Your task to perform on an android device: Go to Yahoo.com Image 0: 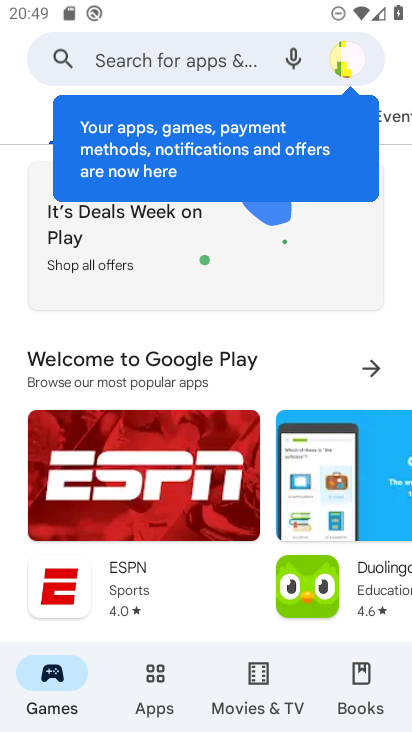
Step 0: press home button
Your task to perform on an android device: Go to Yahoo.com Image 1: 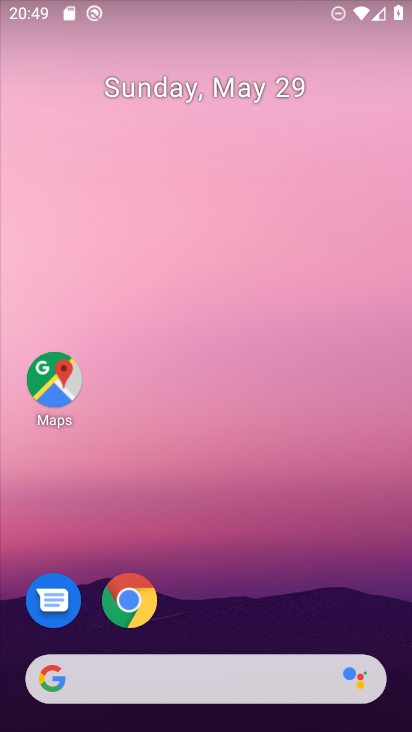
Step 1: drag from (292, 556) to (297, 181)
Your task to perform on an android device: Go to Yahoo.com Image 2: 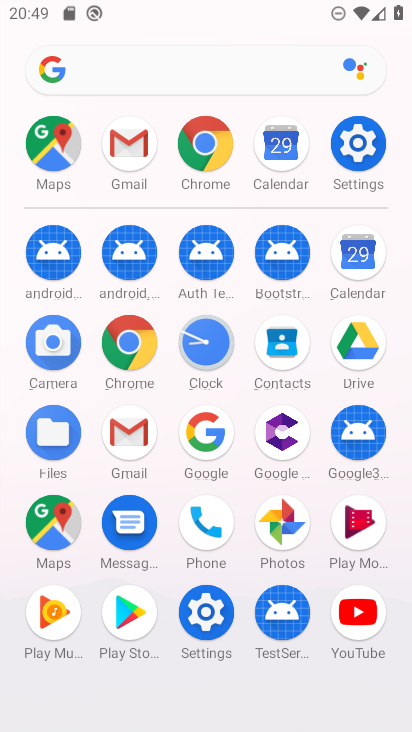
Step 2: click (130, 335)
Your task to perform on an android device: Go to Yahoo.com Image 3: 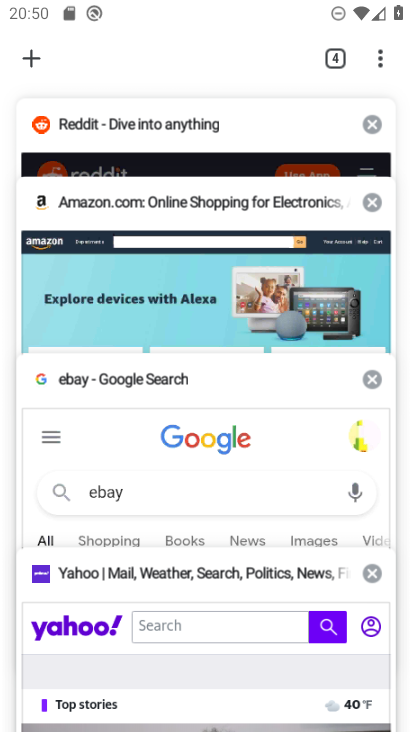
Step 3: click (25, 58)
Your task to perform on an android device: Go to Yahoo.com Image 4: 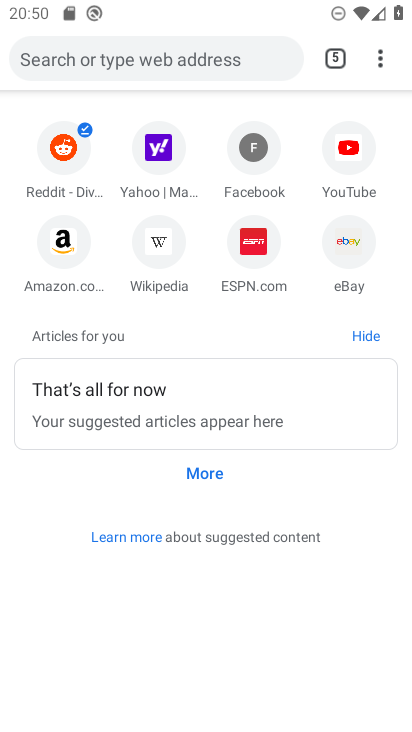
Step 4: click (160, 160)
Your task to perform on an android device: Go to Yahoo.com Image 5: 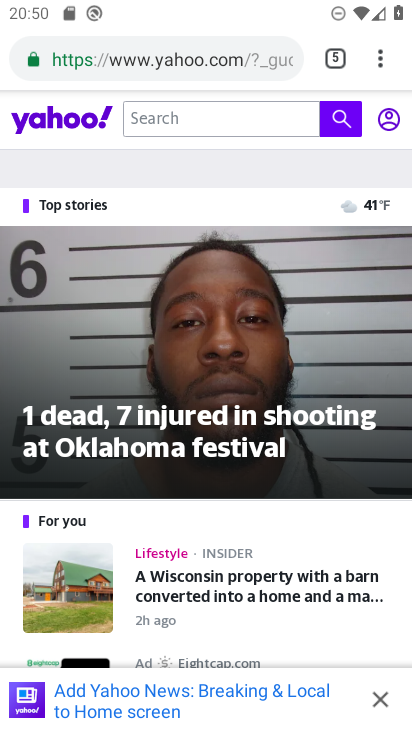
Step 5: task complete